Your task to perform on an android device: change timer sound Image 0: 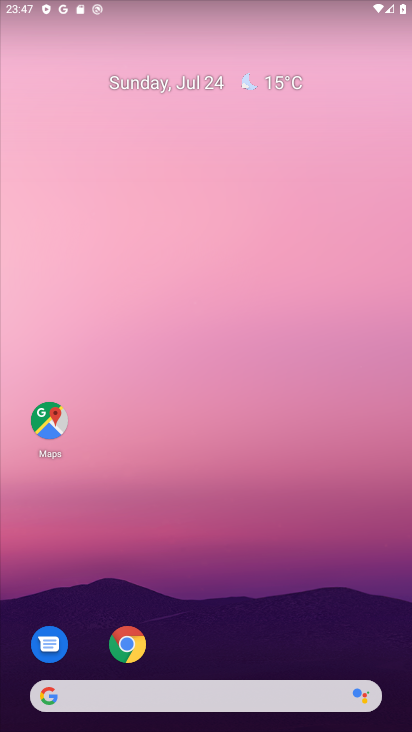
Step 0: drag from (212, 729) to (184, 0)
Your task to perform on an android device: change timer sound Image 1: 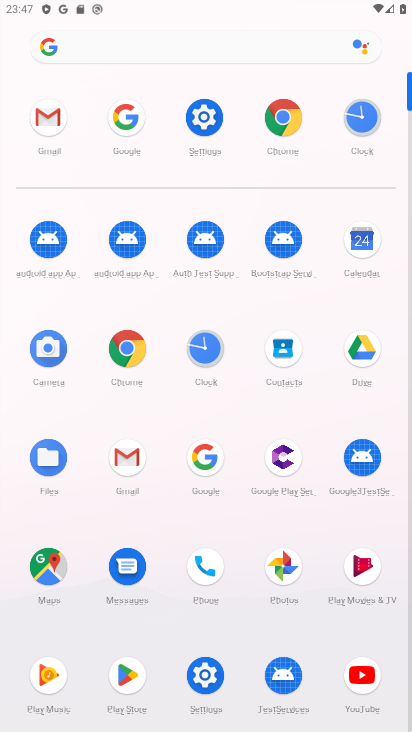
Step 1: click (204, 345)
Your task to perform on an android device: change timer sound Image 2: 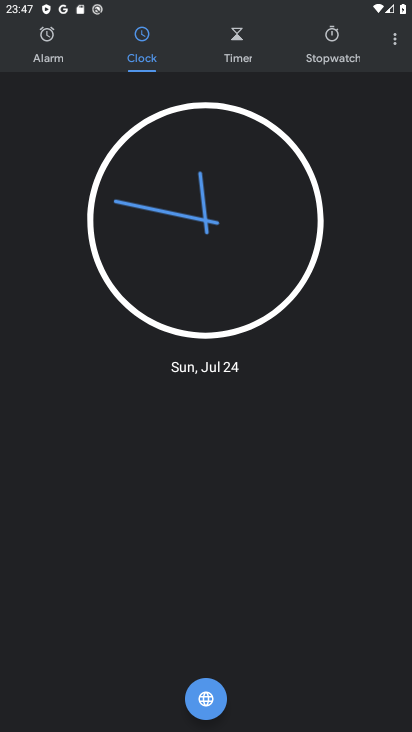
Step 2: click (396, 42)
Your task to perform on an android device: change timer sound Image 3: 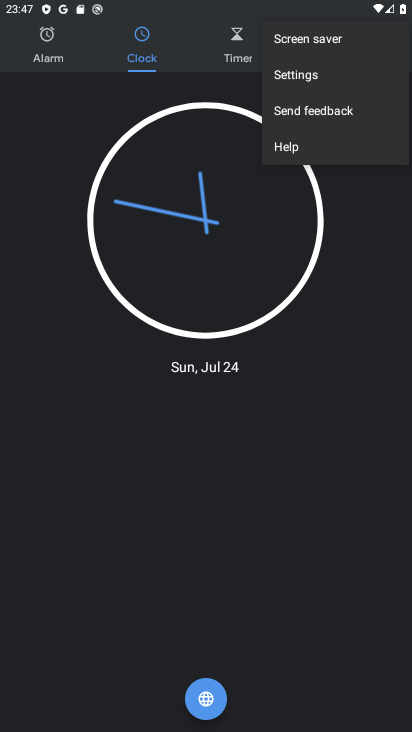
Step 3: click (294, 72)
Your task to perform on an android device: change timer sound Image 4: 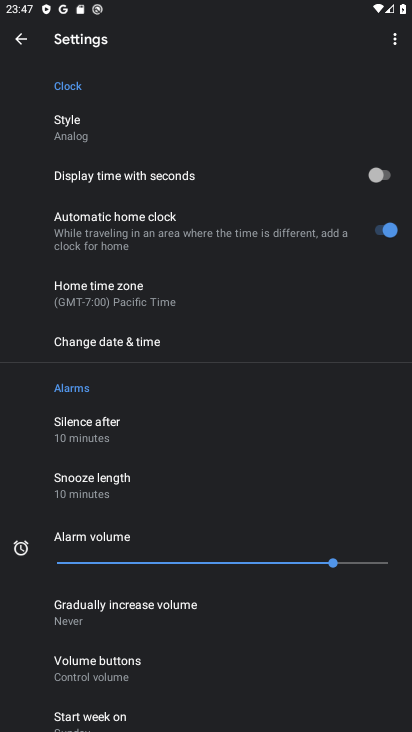
Step 4: drag from (212, 679) to (226, 456)
Your task to perform on an android device: change timer sound Image 5: 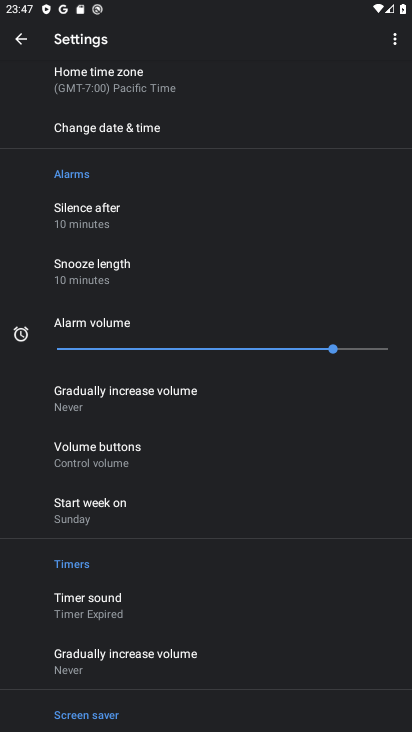
Step 5: click (110, 609)
Your task to perform on an android device: change timer sound Image 6: 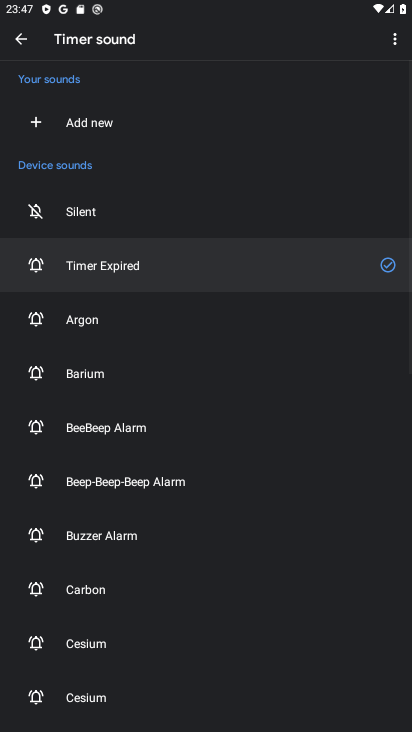
Step 6: click (92, 648)
Your task to perform on an android device: change timer sound Image 7: 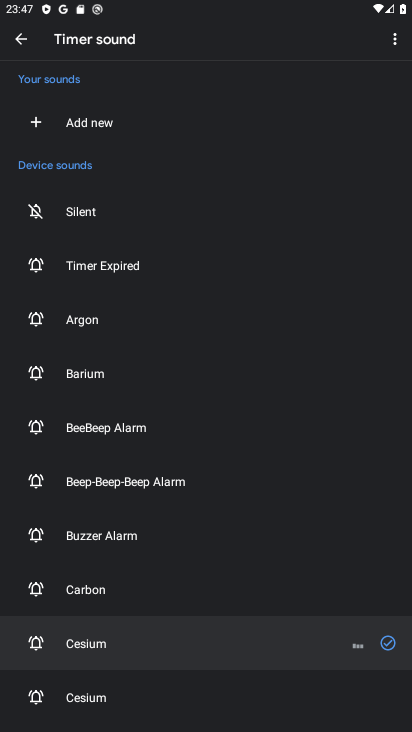
Step 7: task complete